Your task to perform on an android device: View the shopping cart on walmart. Image 0: 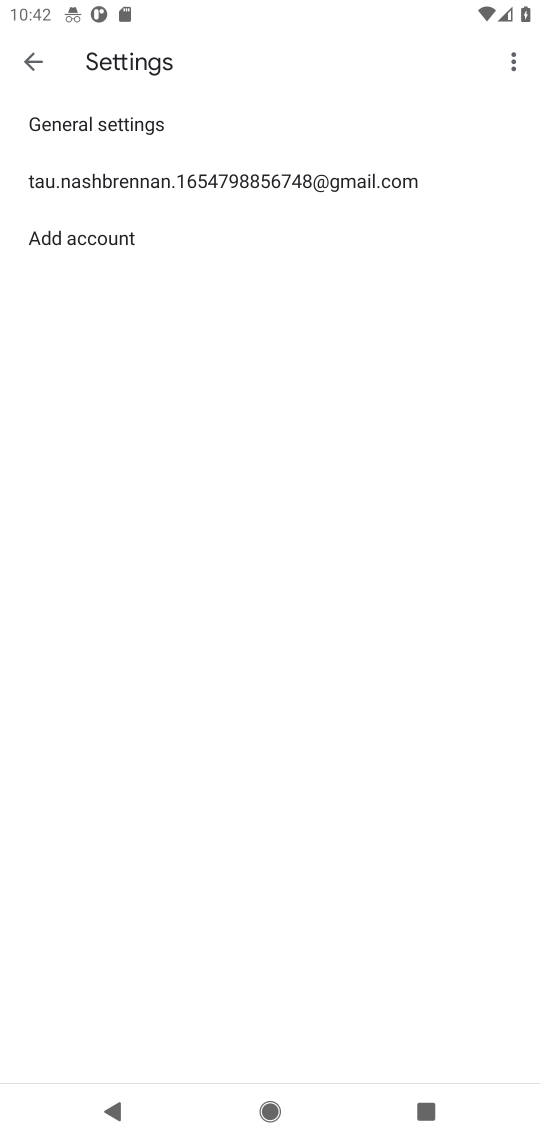
Step 0: press home button
Your task to perform on an android device: View the shopping cart on walmart. Image 1: 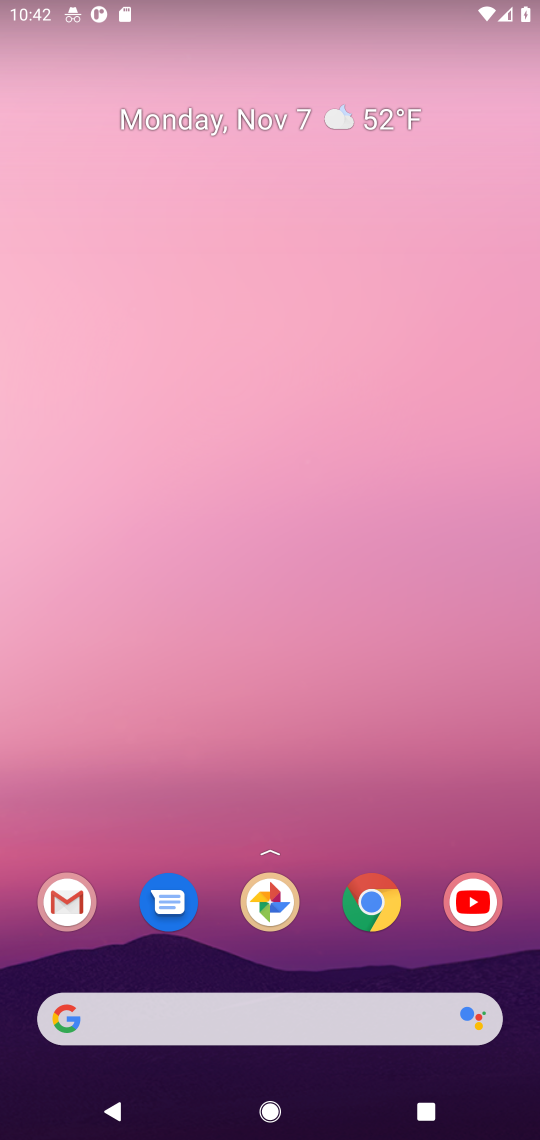
Step 1: click (384, 918)
Your task to perform on an android device: View the shopping cart on walmart. Image 2: 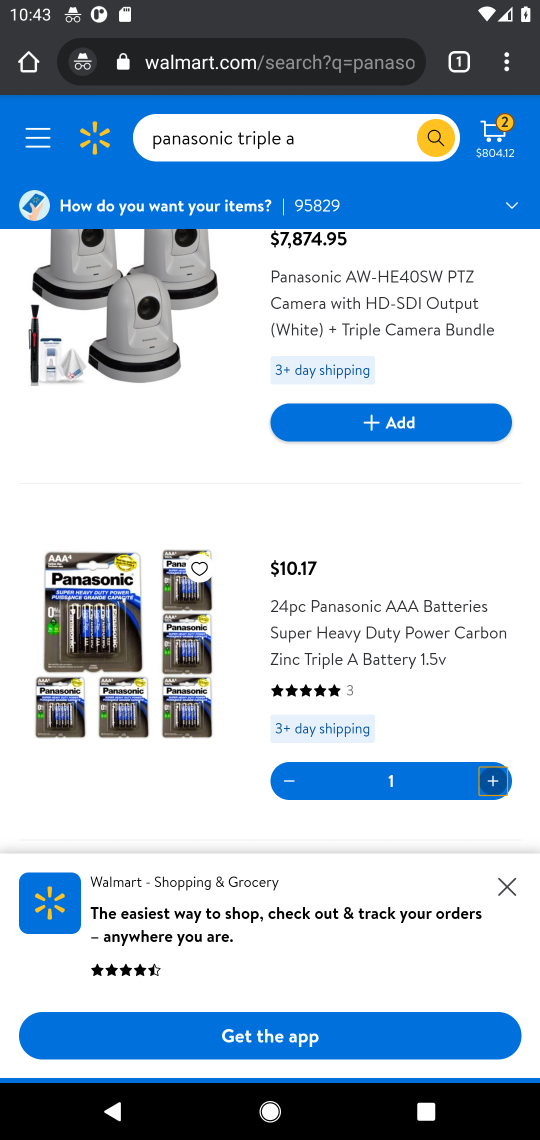
Step 2: click (499, 136)
Your task to perform on an android device: View the shopping cart on walmart. Image 3: 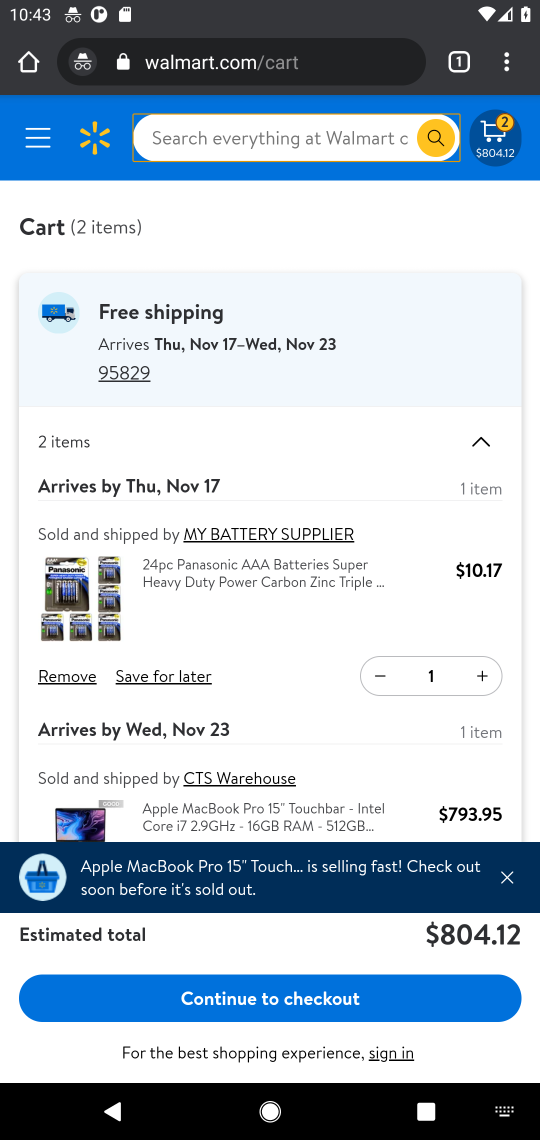
Step 3: task complete